Your task to perform on an android device: Go to calendar. Show me events next week Image 0: 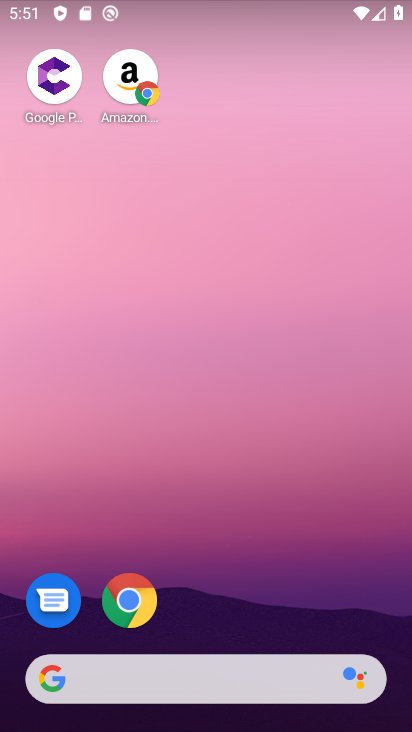
Step 0: drag from (276, 590) to (339, 728)
Your task to perform on an android device: Go to calendar. Show me events next week Image 1: 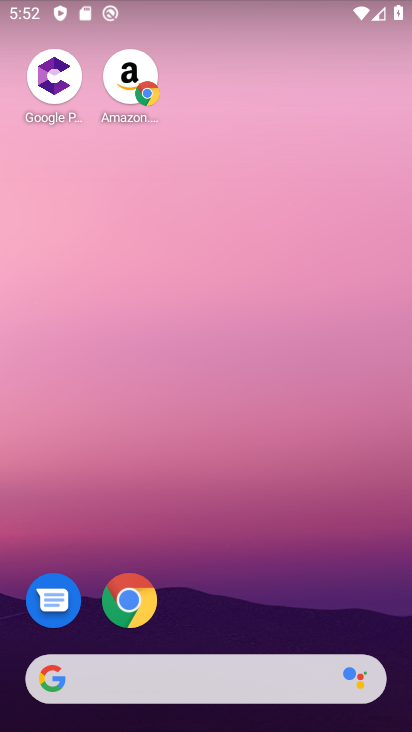
Step 1: drag from (266, 609) to (324, 0)
Your task to perform on an android device: Go to calendar. Show me events next week Image 2: 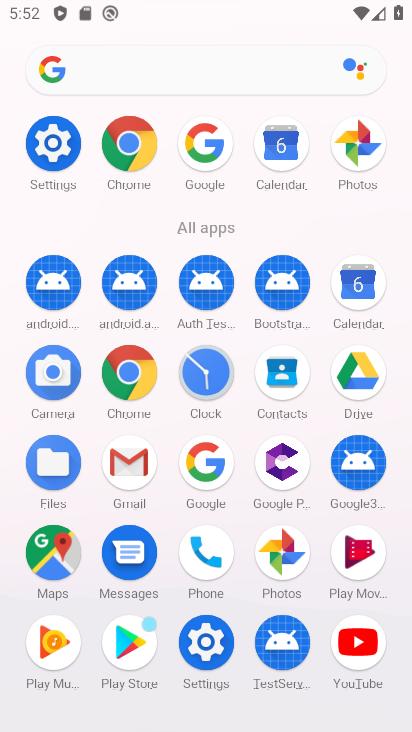
Step 2: click (361, 285)
Your task to perform on an android device: Go to calendar. Show me events next week Image 3: 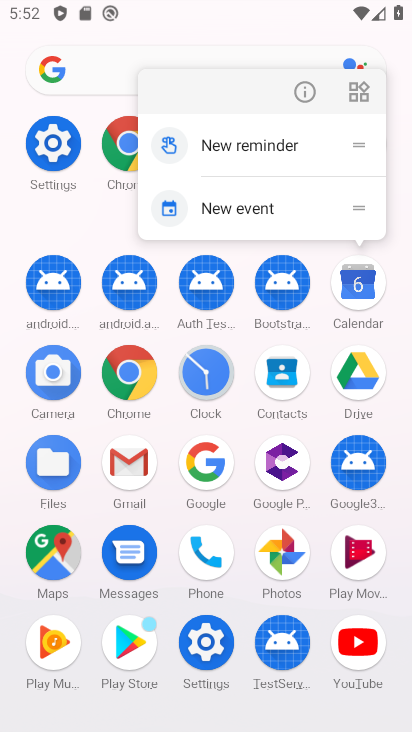
Step 3: click (354, 275)
Your task to perform on an android device: Go to calendar. Show me events next week Image 4: 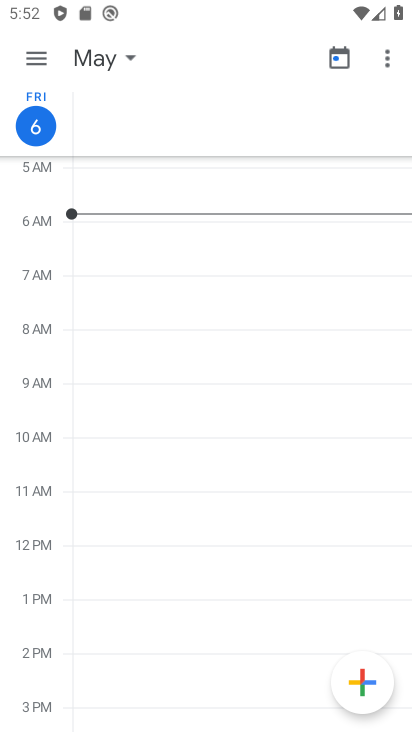
Step 4: click (343, 61)
Your task to perform on an android device: Go to calendar. Show me events next week Image 5: 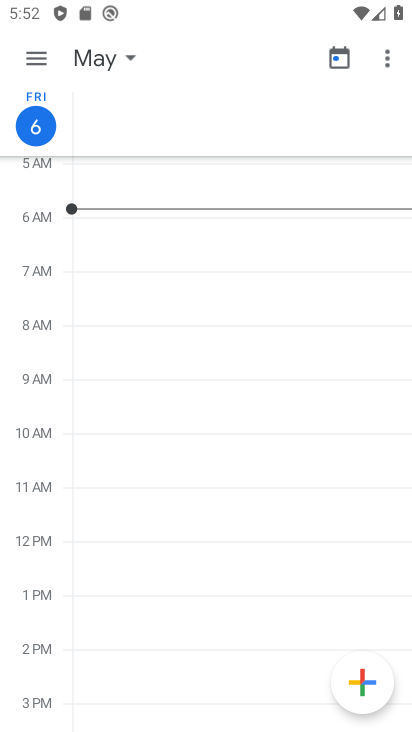
Step 5: click (131, 54)
Your task to perform on an android device: Go to calendar. Show me events next week Image 6: 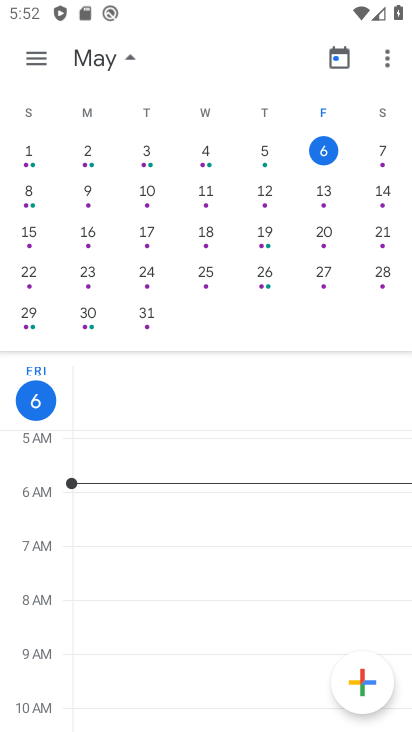
Step 6: click (85, 200)
Your task to perform on an android device: Go to calendar. Show me events next week Image 7: 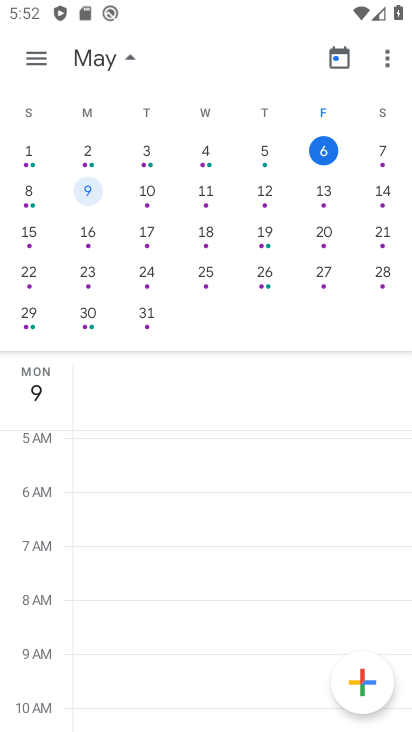
Step 7: click (31, 52)
Your task to perform on an android device: Go to calendar. Show me events next week Image 8: 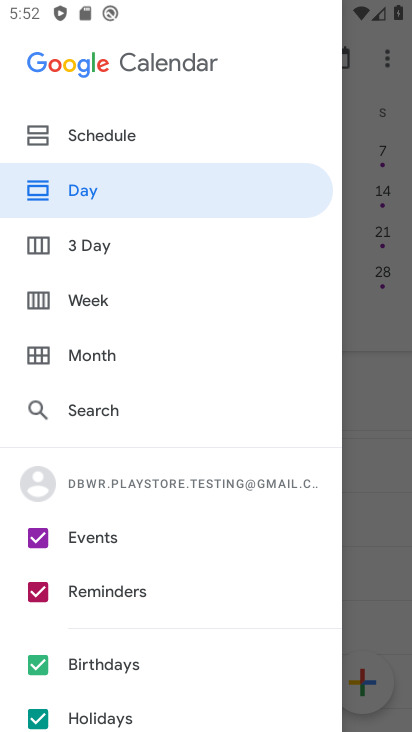
Step 8: click (91, 289)
Your task to perform on an android device: Go to calendar. Show me events next week Image 9: 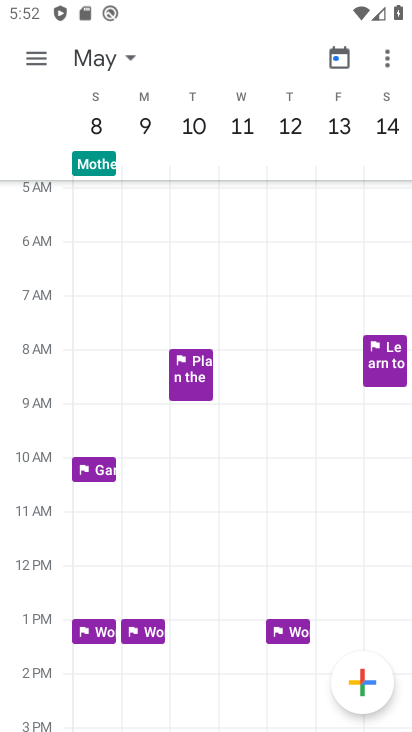
Step 9: task complete